Your task to perform on an android device: move a message to another label in the gmail app Image 0: 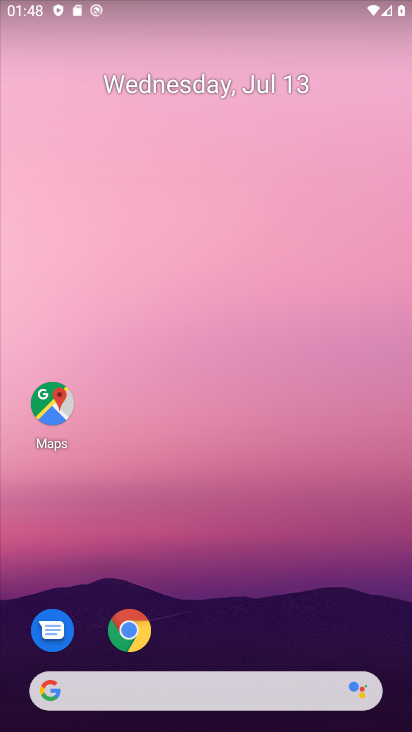
Step 0: drag from (227, 633) to (185, 111)
Your task to perform on an android device: move a message to another label in the gmail app Image 1: 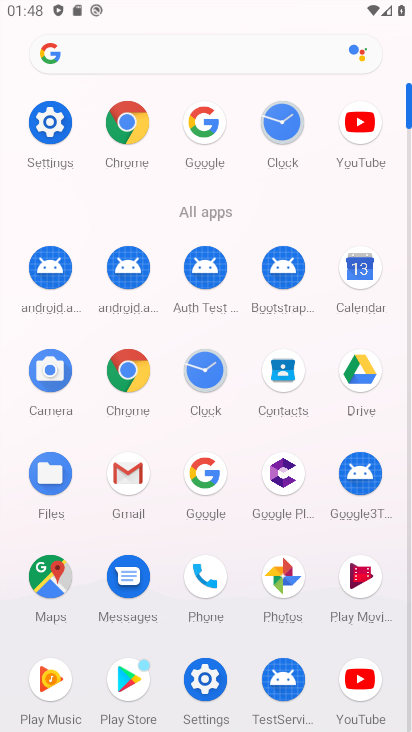
Step 1: click (148, 474)
Your task to perform on an android device: move a message to another label in the gmail app Image 2: 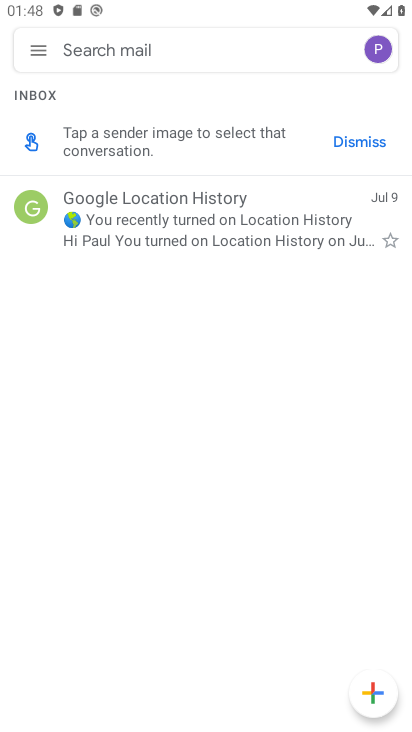
Step 2: click (252, 202)
Your task to perform on an android device: move a message to another label in the gmail app Image 3: 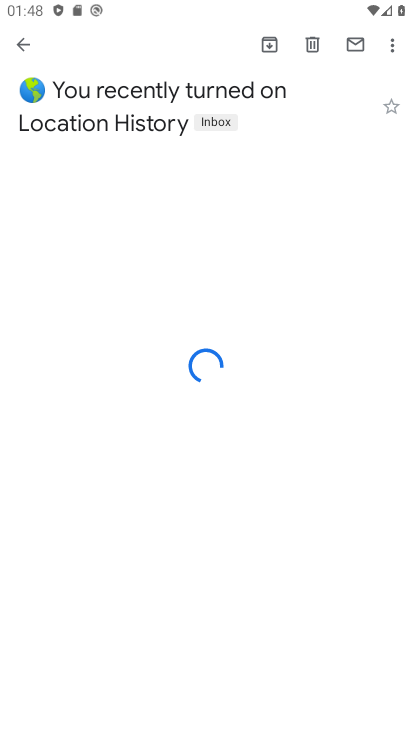
Step 3: click (391, 42)
Your task to perform on an android device: move a message to another label in the gmail app Image 4: 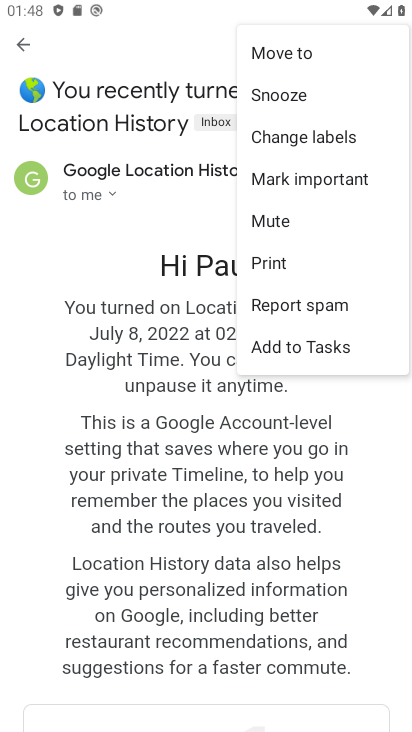
Step 4: click (326, 137)
Your task to perform on an android device: move a message to another label in the gmail app Image 5: 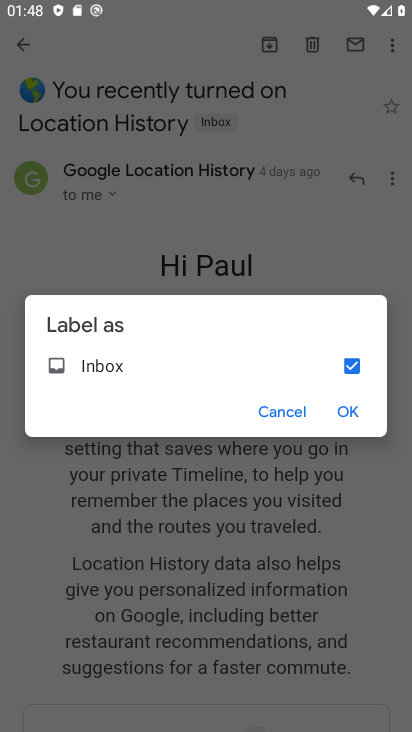
Step 5: click (339, 421)
Your task to perform on an android device: move a message to another label in the gmail app Image 6: 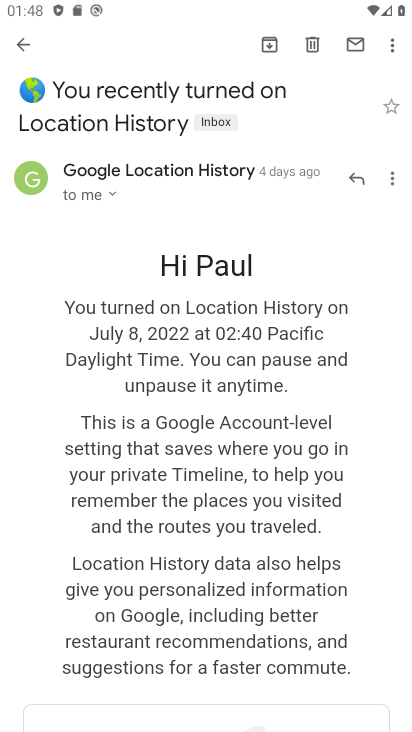
Step 6: task complete